Your task to perform on an android device: check battery use Image 0: 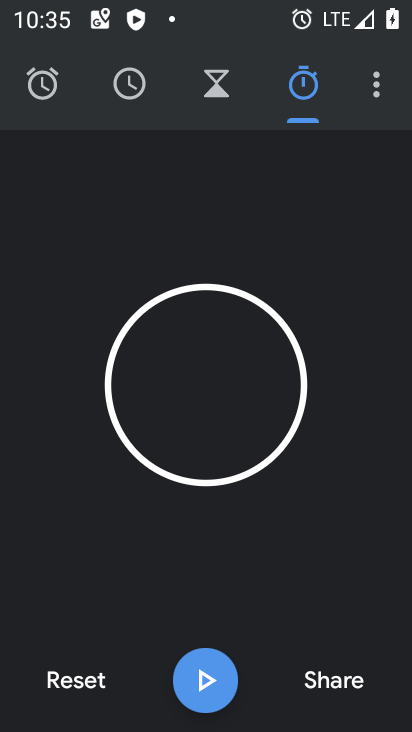
Step 0: press home button
Your task to perform on an android device: check battery use Image 1: 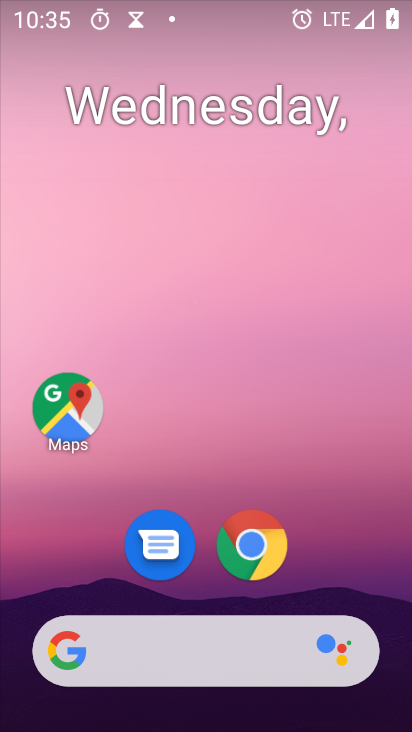
Step 1: drag from (184, 654) to (329, 174)
Your task to perform on an android device: check battery use Image 2: 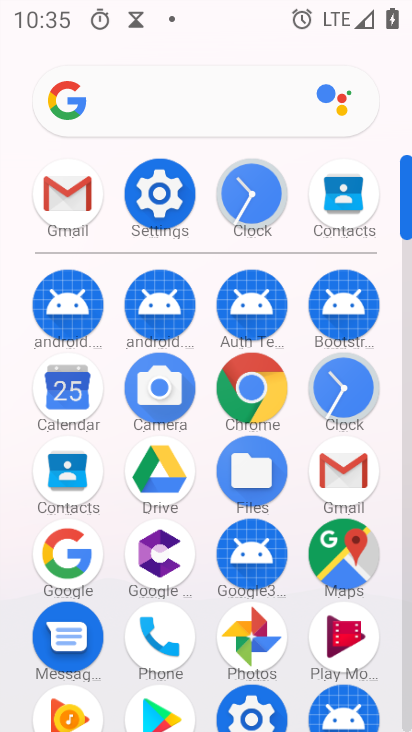
Step 2: click (144, 204)
Your task to perform on an android device: check battery use Image 3: 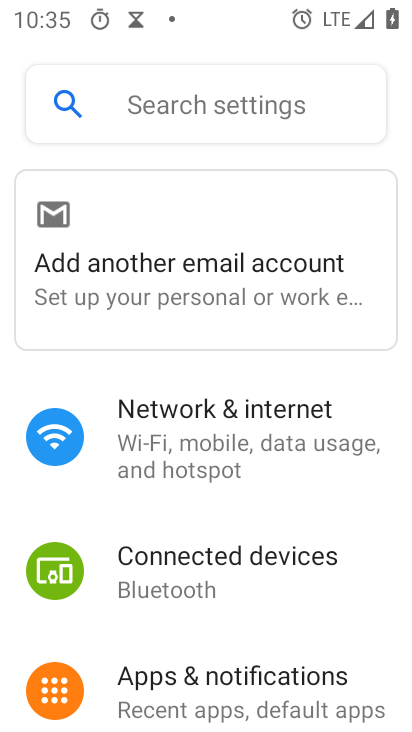
Step 3: drag from (183, 635) to (392, 195)
Your task to perform on an android device: check battery use Image 4: 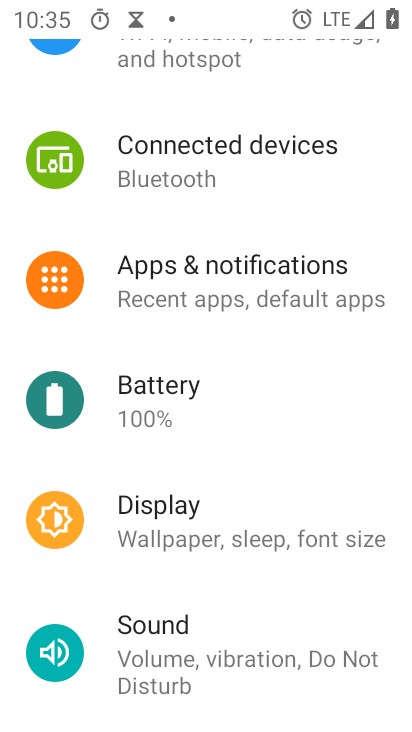
Step 4: click (174, 396)
Your task to perform on an android device: check battery use Image 5: 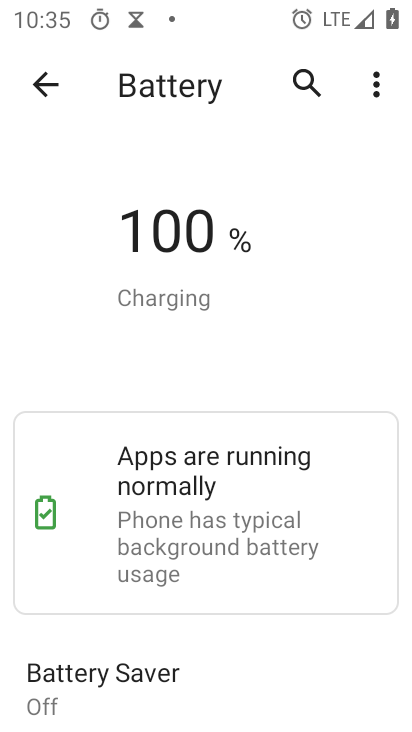
Step 5: click (370, 92)
Your task to perform on an android device: check battery use Image 6: 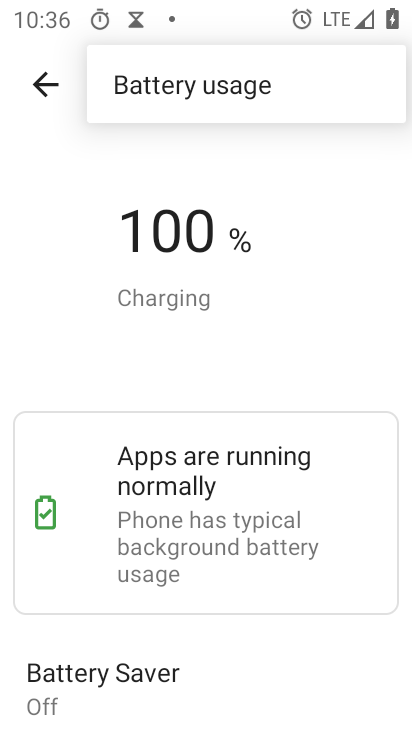
Step 6: click (235, 90)
Your task to perform on an android device: check battery use Image 7: 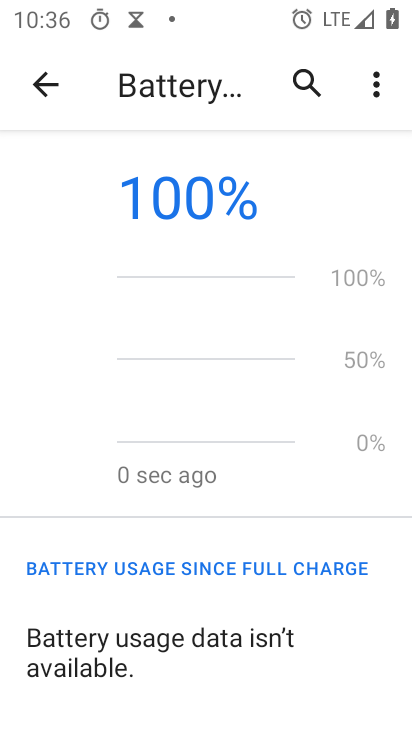
Step 7: task complete